Your task to perform on an android device: Go to Amazon Image 0: 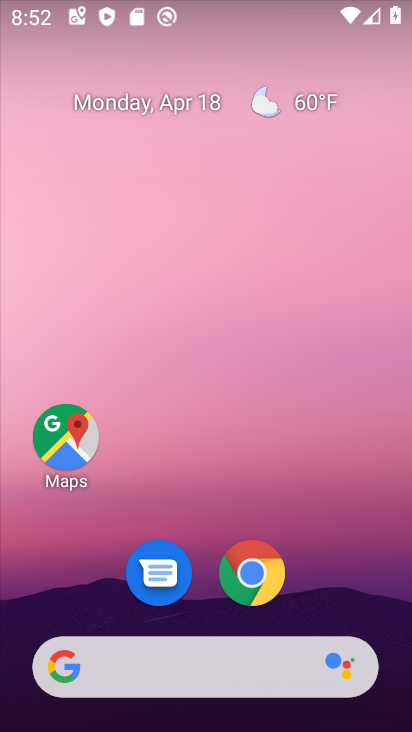
Step 0: click (250, 582)
Your task to perform on an android device: Go to Amazon Image 1: 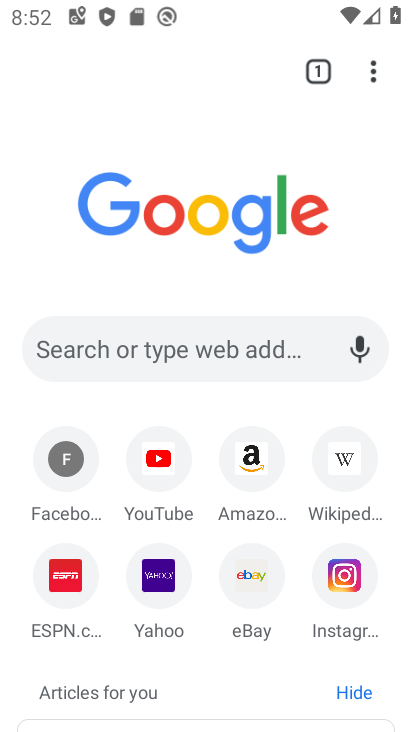
Step 1: click (254, 463)
Your task to perform on an android device: Go to Amazon Image 2: 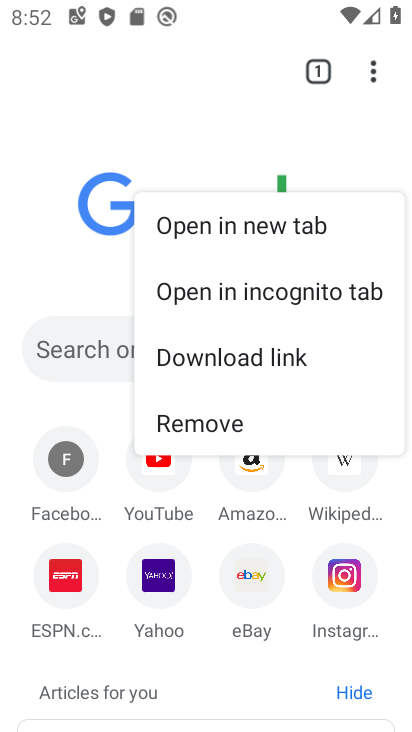
Step 2: click (247, 462)
Your task to perform on an android device: Go to Amazon Image 3: 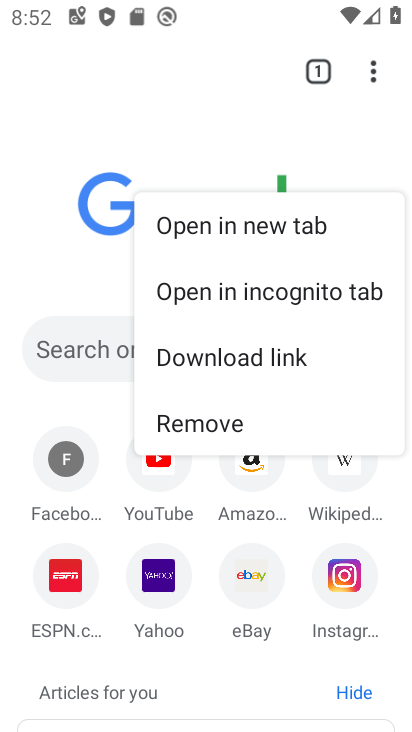
Step 3: click (253, 499)
Your task to perform on an android device: Go to Amazon Image 4: 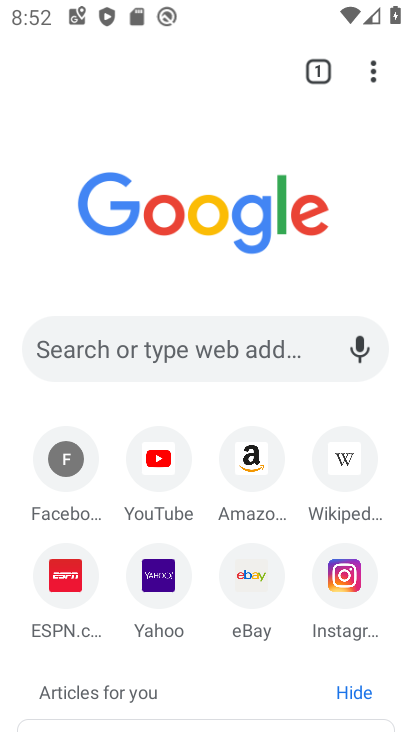
Step 4: click (256, 461)
Your task to perform on an android device: Go to Amazon Image 5: 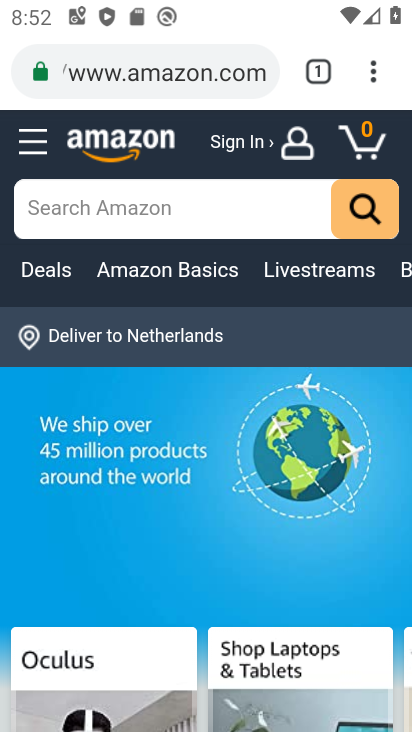
Step 5: task complete